Your task to perform on an android device: toggle notifications settings in the gmail app Image 0: 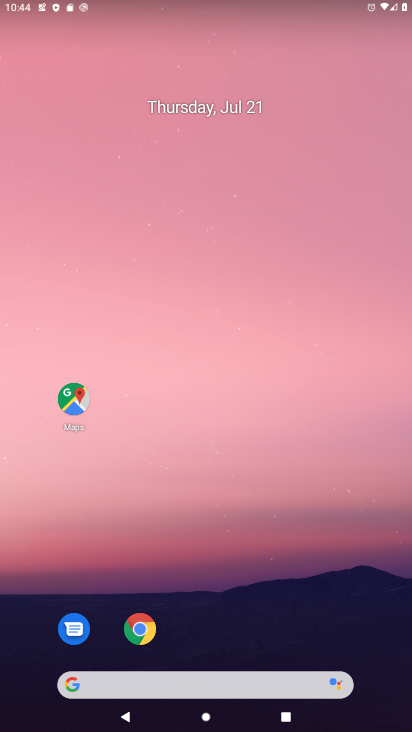
Step 0: drag from (284, 592) to (292, 80)
Your task to perform on an android device: toggle notifications settings in the gmail app Image 1: 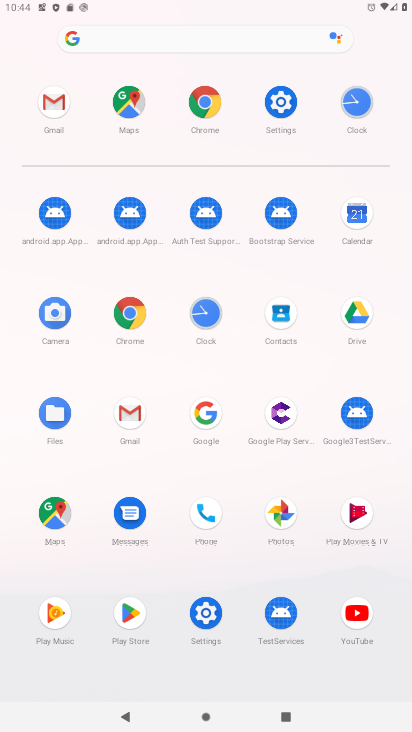
Step 1: click (127, 415)
Your task to perform on an android device: toggle notifications settings in the gmail app Image 2: 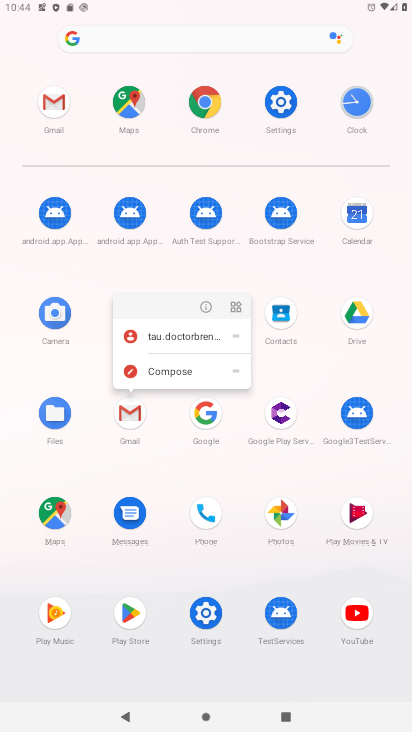
Step 2: click (203, 302)
Your task to perform on an android device: toggle notifications settings in the gmail app Image 3: 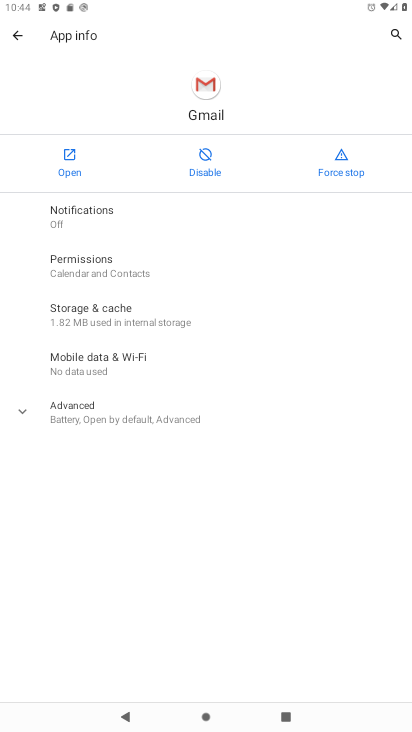
Step 3: click (127, 202)
Your task to perform on an android device: toggle notifications settings in the gmail app Image 4: 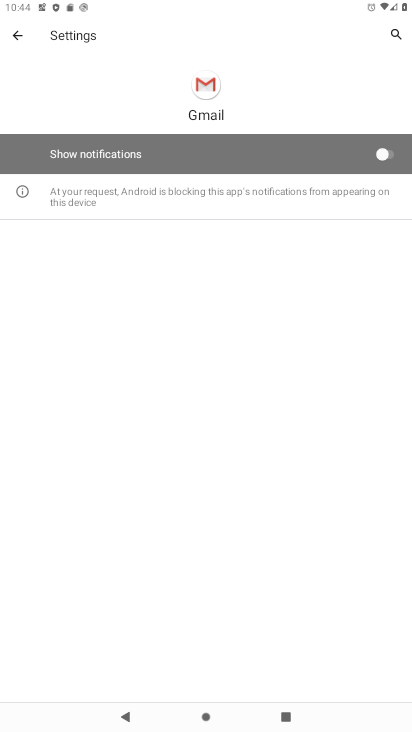
Step 4: click (283, 157)
Your task to perform on an android device: toggle notifications settings in the gmail app Image 5: 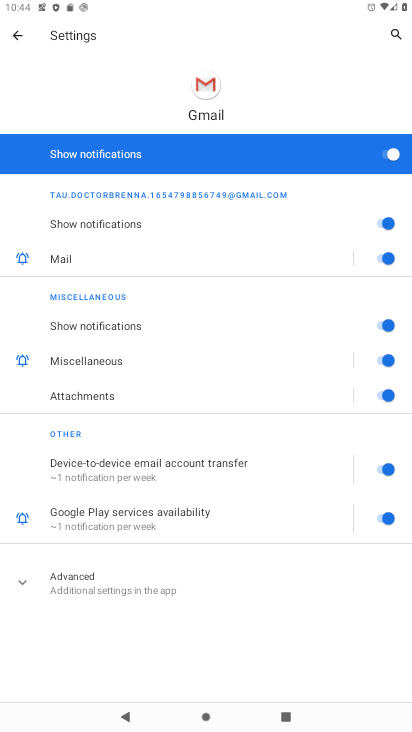
Step 5: task complete